Your task to perform on an android device: toggle sleep mode Image 0: 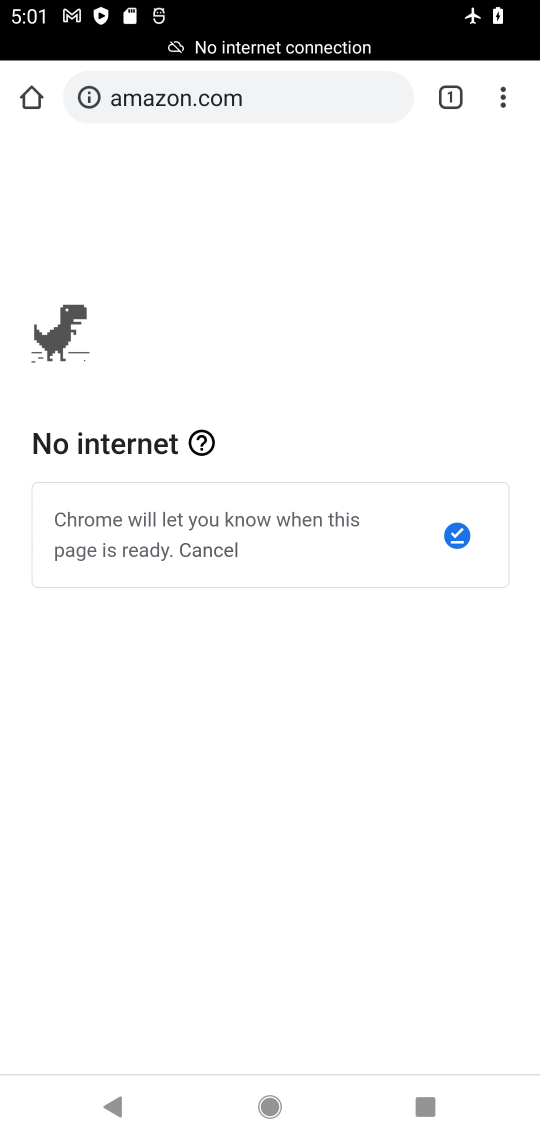
Step 0: press home button
Your task to perform on an android device: toggle sleep mode Image 1: 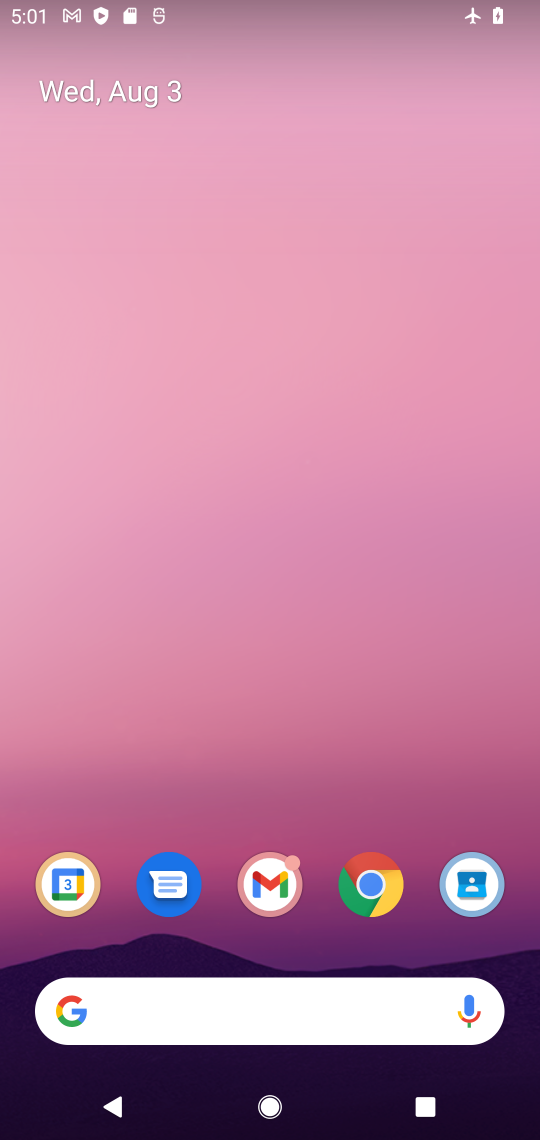
Step 1: drag from (422, 986) to (122, 51)
Your task to perform on an android device: toggle sleep mode Image 2: 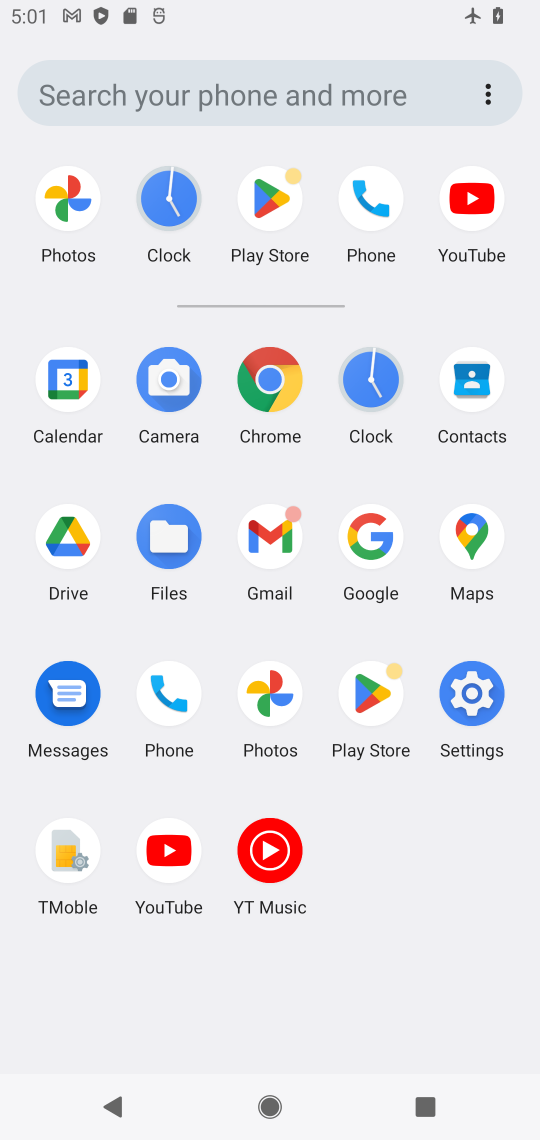
Step 2: click (467, 688)
Your task to perform on an android device: toggle sleep mode Image 3: 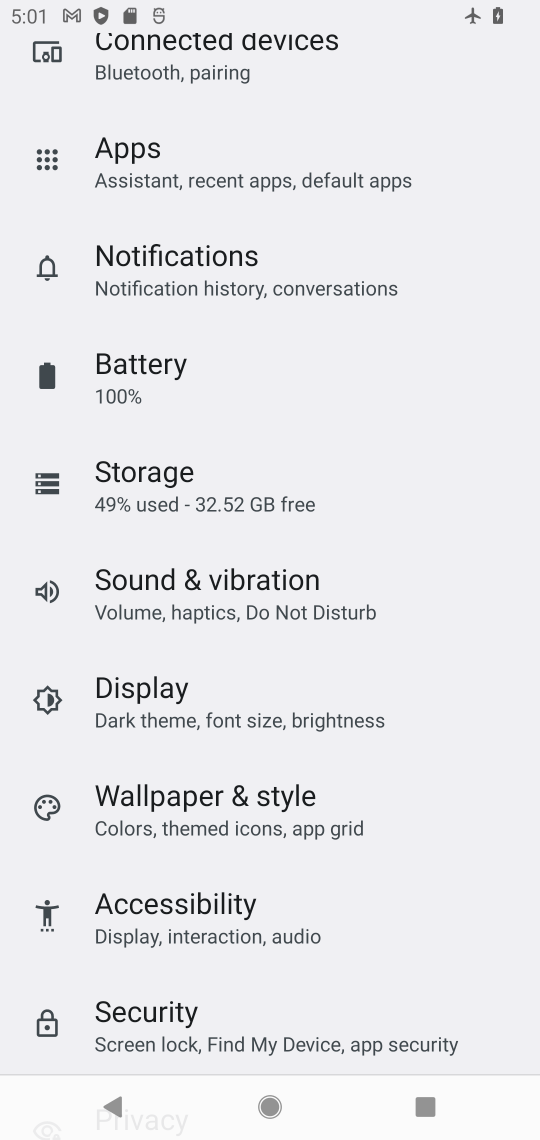
Step 3: task complete